Your task to perform on an android device: Add "dell alienware" to the cart on bestbuy.com Image 0: 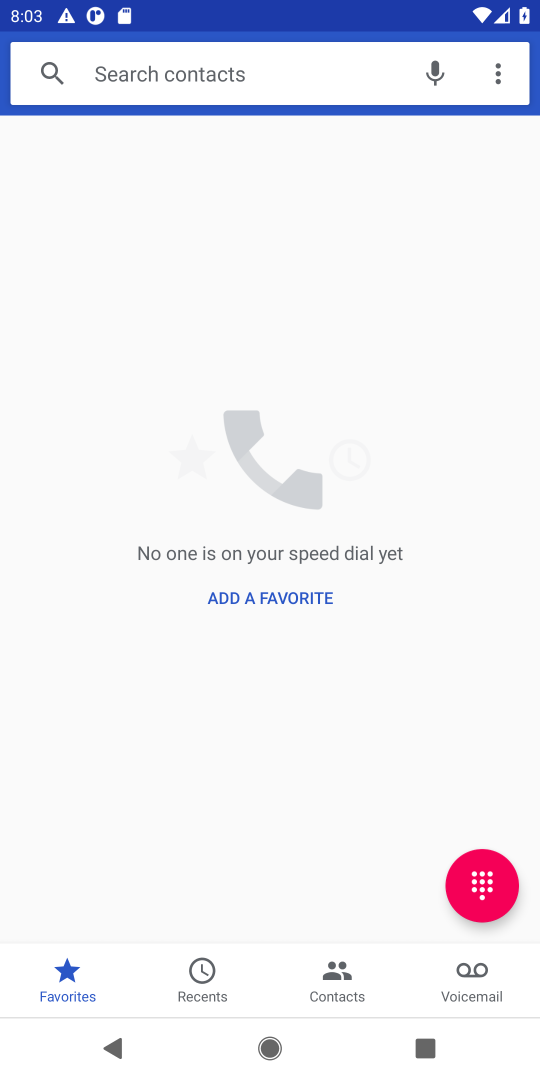
Step 0: press home button
Your task to perform on an android device: Add "dell alienware" to the cart on bestbuy.com Image 1: 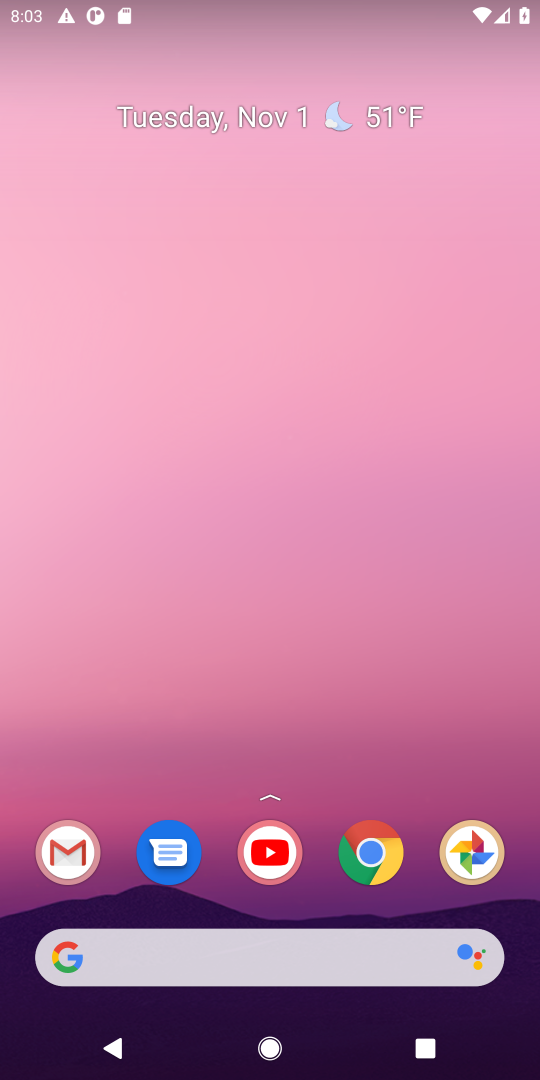
Step 1: click (368, 864)
Your task to perform on an android device: Add "dell alienware" to the cart on bestbuy.com Image 2: 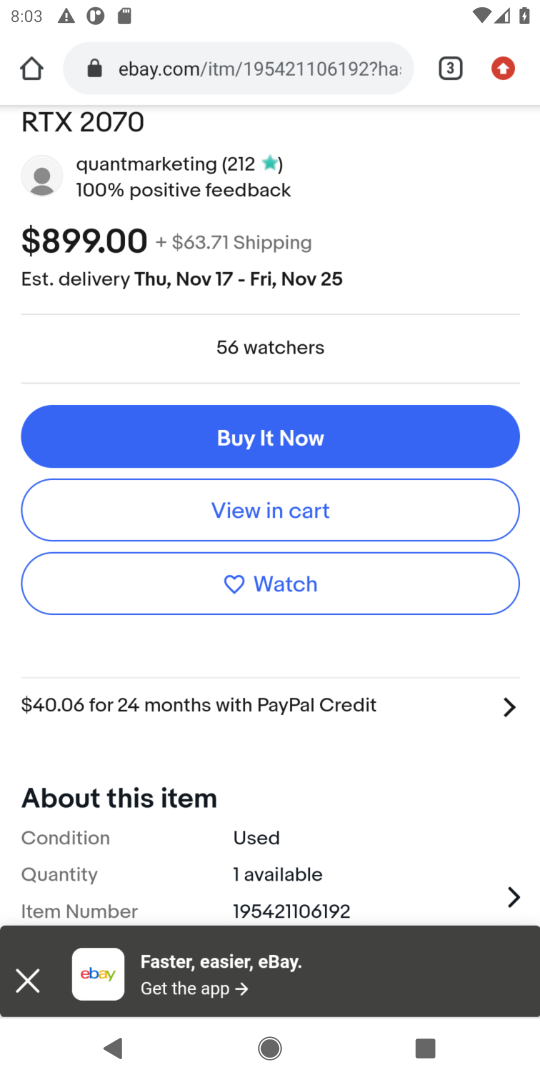
Step 2: click (264, 63)
Your task to perform on an android device: Add "dell alienware" to the cart on bestbuy.com Image 3: 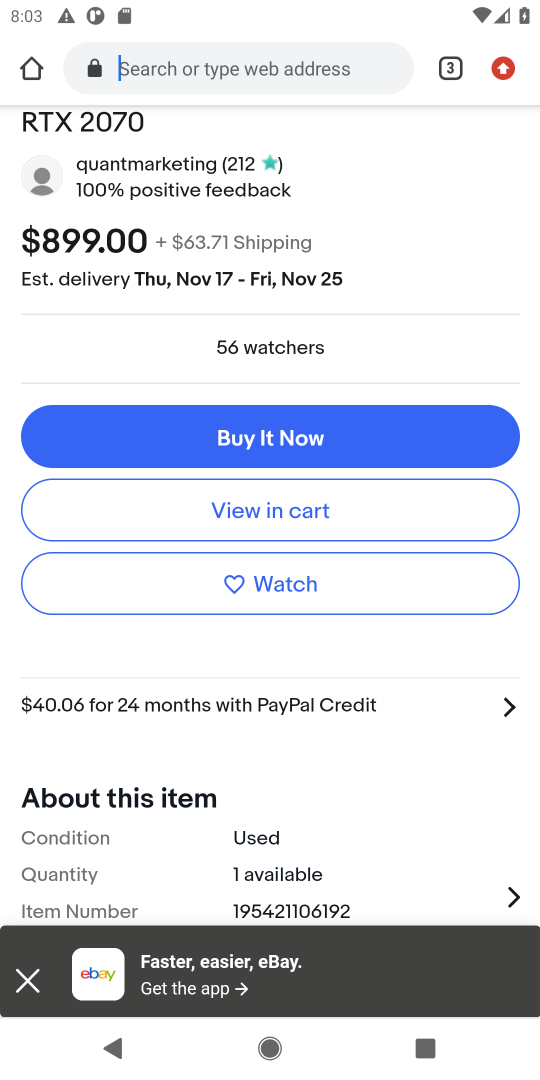
Step 3: click (264, 63)
Your task to perform on an android device: Add "dell alienware" to the cart on bestbuy.com Image 4: 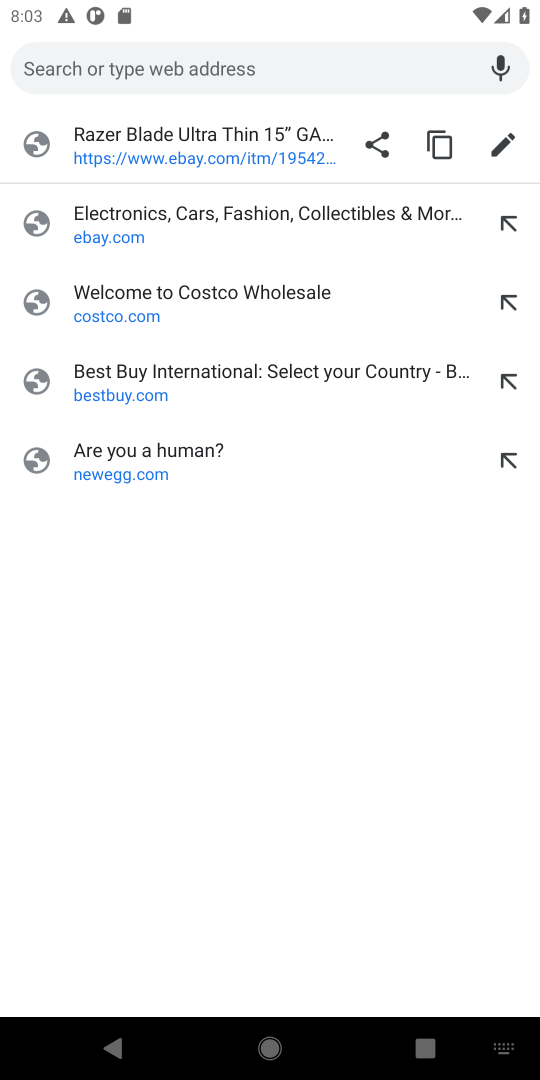
Step 4: type "bestbuy.com"
Your task to perform on an android device: Add "dell alienware" to the cart on bestbuy.com Image 5: 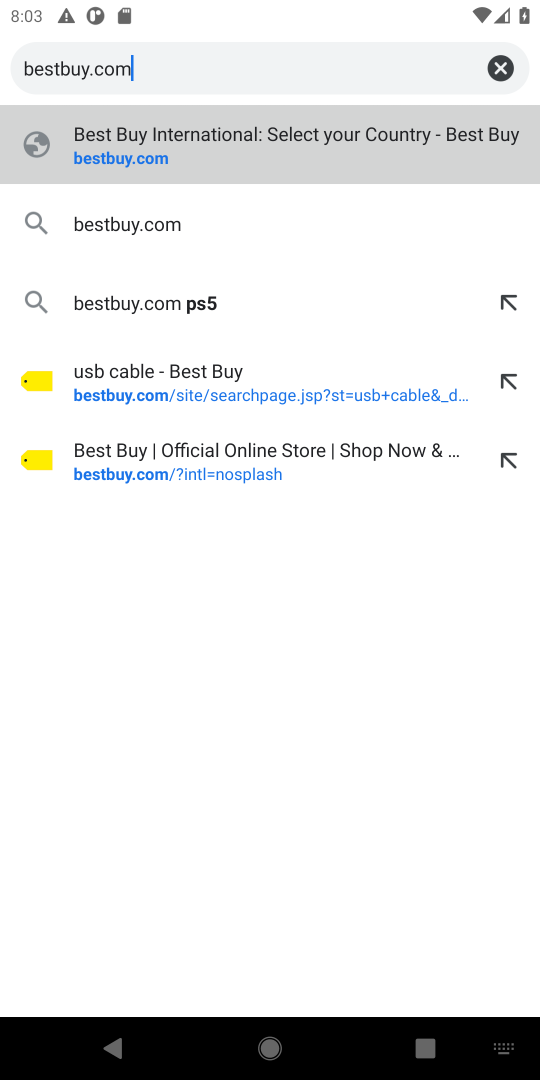
Step 5: click (327, 149)
Your task to perform on an android device: Add "dell alienware" to the cart on bestbuy.com Image 6: 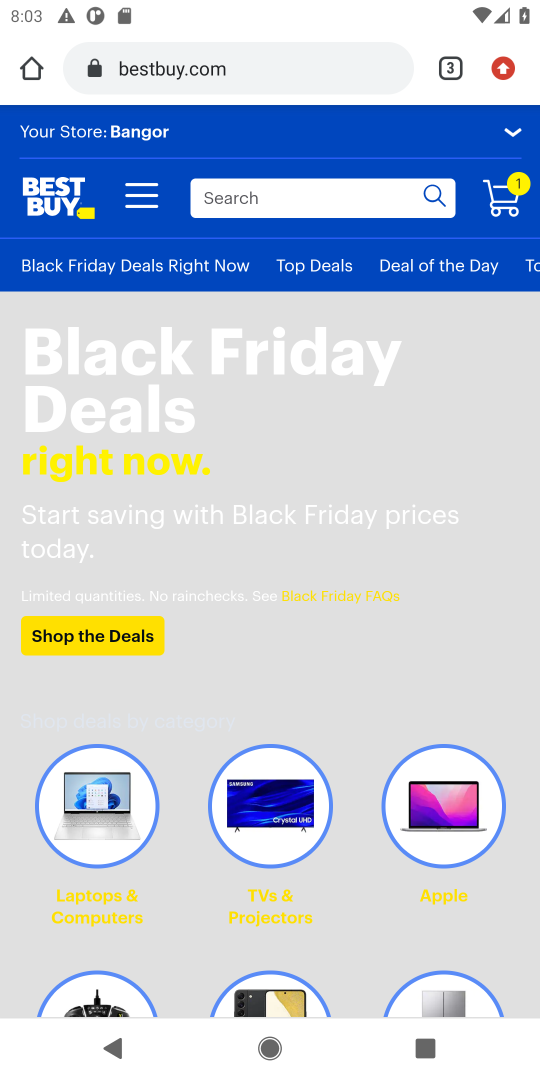
Step 6: click (279, 196)
Your task to perform on an android device: Add "dell alienware" to the cart on bestbuy.com Image 7: 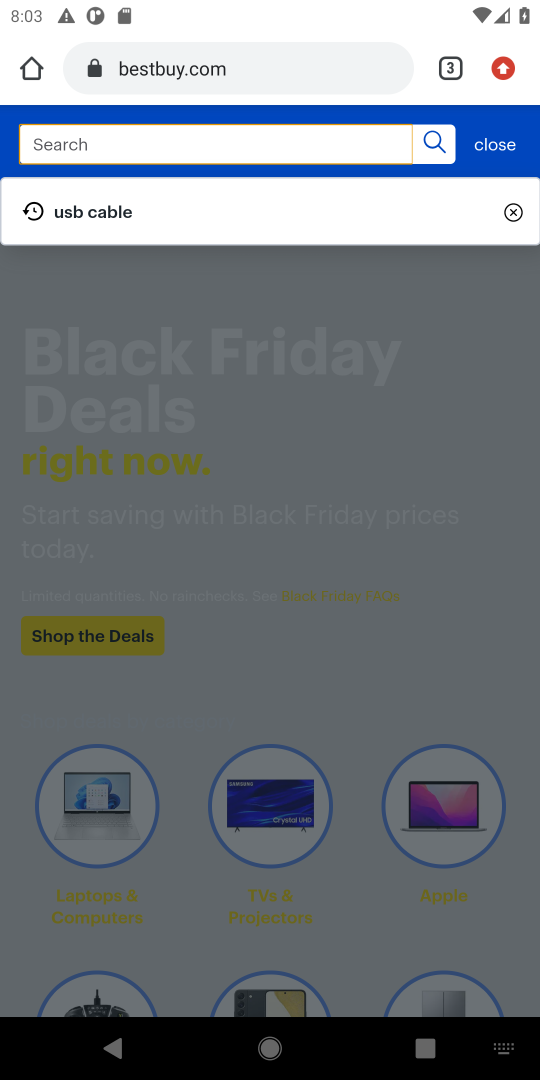
Step 7: type "dell alienware"
Your task to perform on an android device: Add "dell alienware" to the cart on bestbuy.com Image 8: 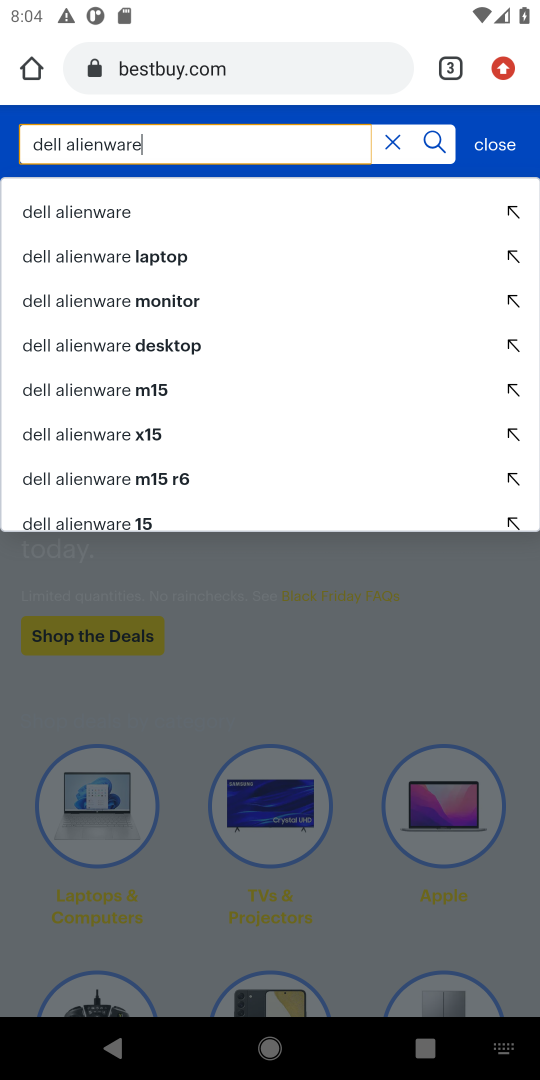
Step 8: click (129, 201)
Your task to perform on an android device: Add "dell alienware" to the cart on bestbuy.com Image 9: 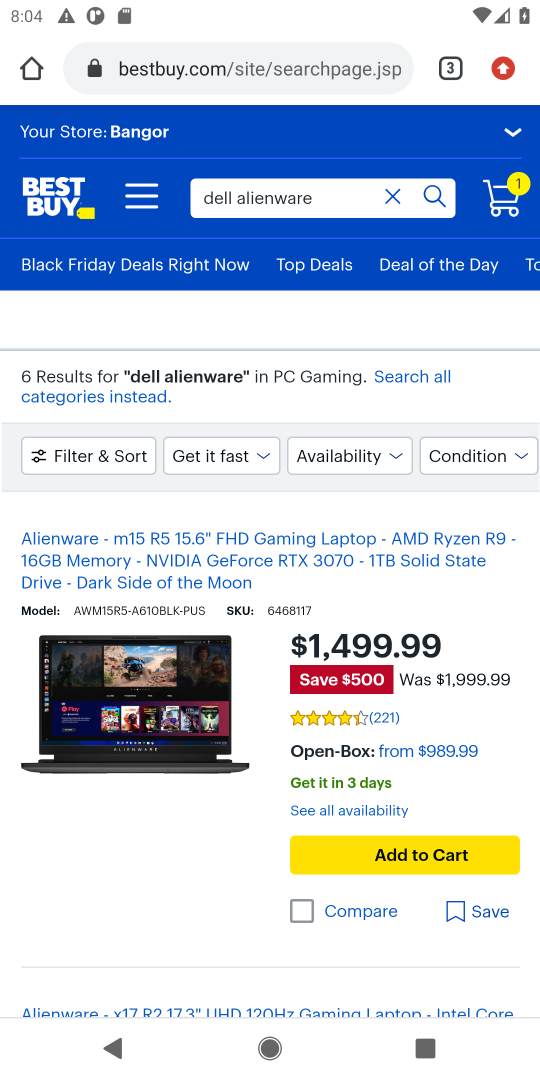
Step 9: drag from (217, 804) to (324, 564)
Your task to perform on an android device: Add "dell alienware" to the cart on bestbuy.com Image 10: 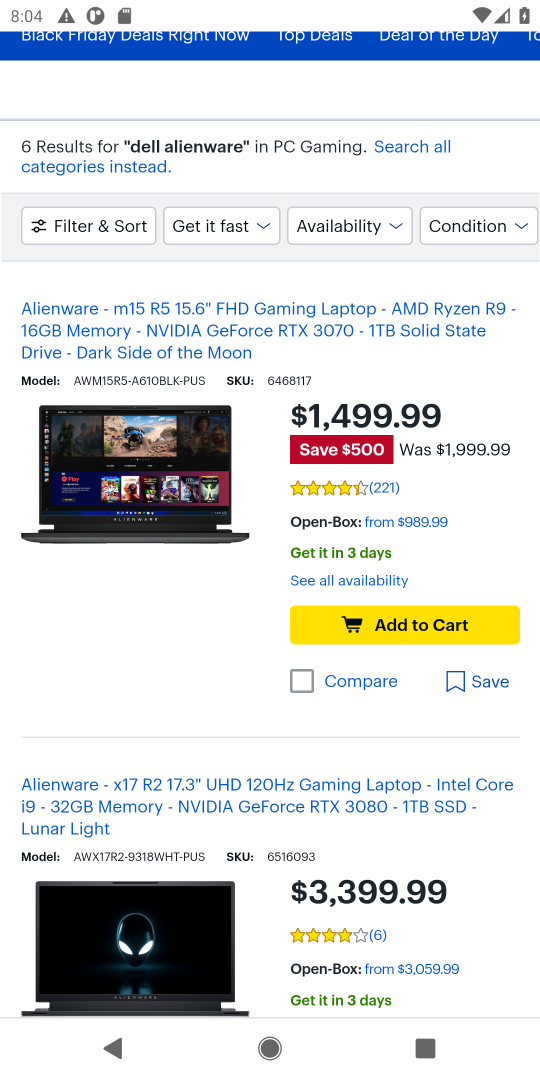
Step 10: click (417, 624)
Your task to perform on an android device: Add "dell alienware" to the cart on bestbuy.com Image 11: 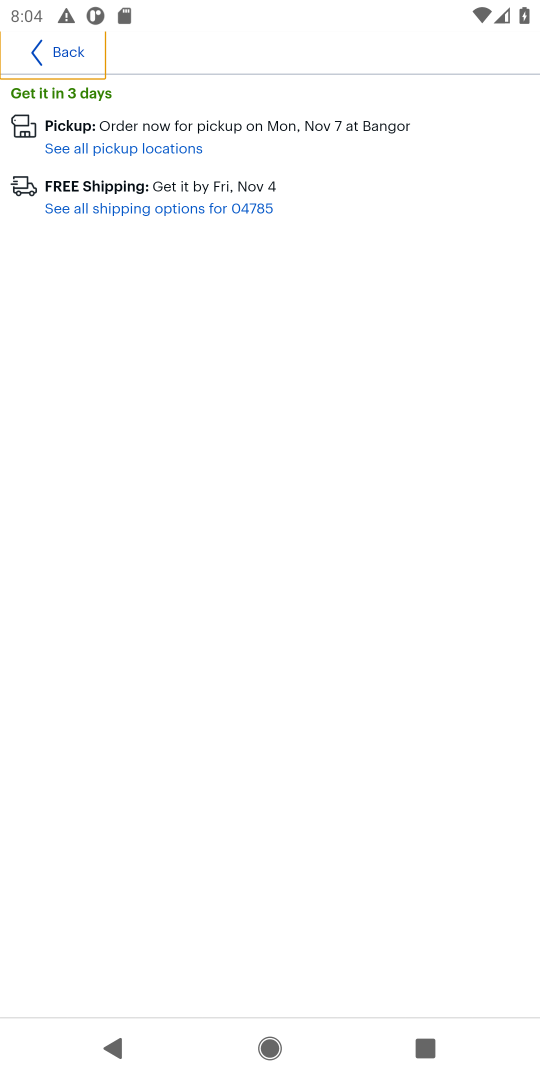
Step 11: click (42, 44)
Your task to perform on an android device: Add "dell alienware" to the cart on bestbuy.com Image 12: 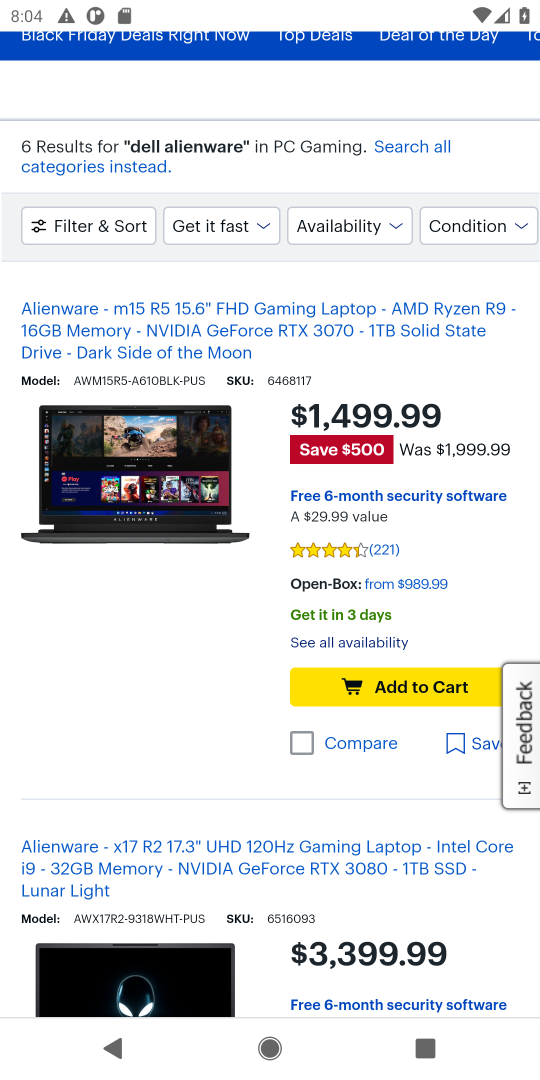
Step 12: click (412, 687)
Your task to perform on an android device: Add "dell alienware" to the cart on bestbuy.com Image 13: 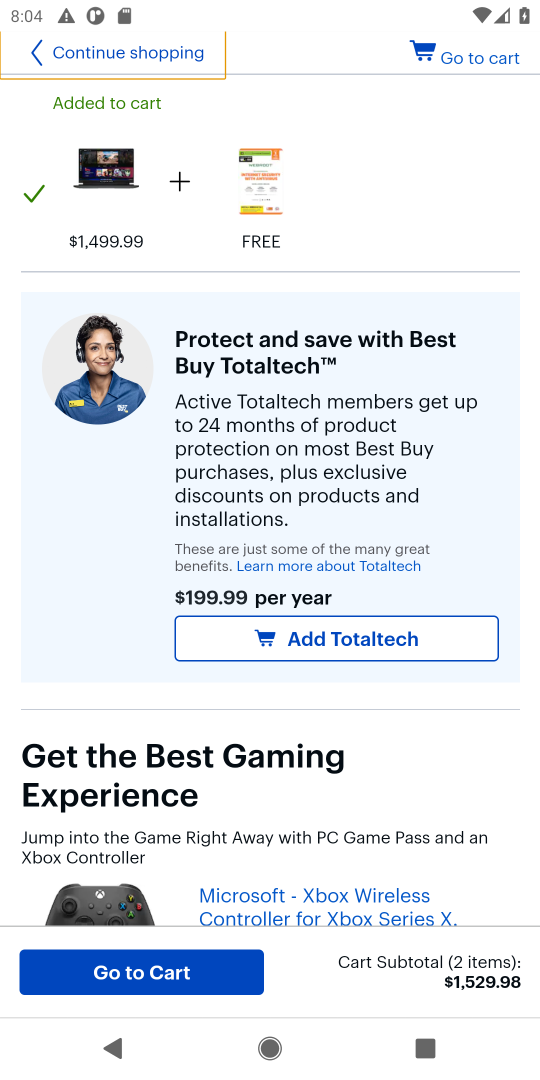
Step 13: task complete